Your task to perform on an android device: Go to Yahoo.com Image 0: 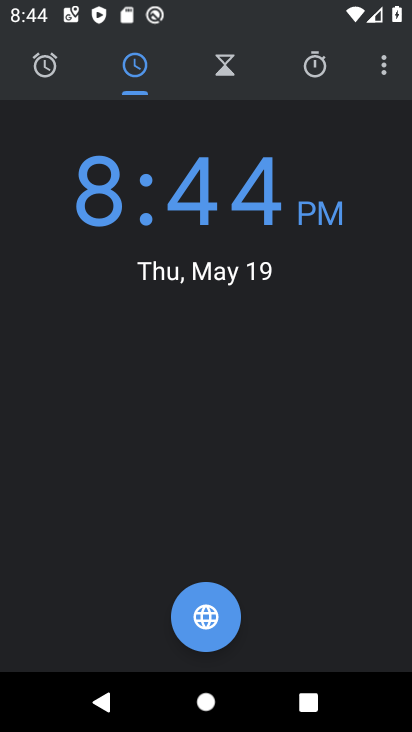
Step 0: press home button
Your task to perform on an android device: Go to Yahoo.com Image 1: 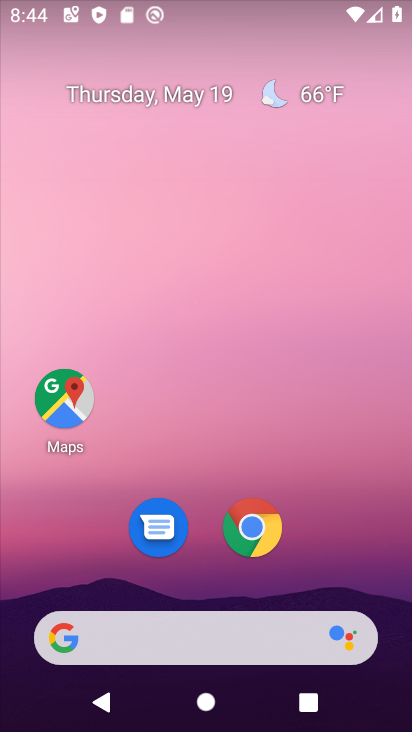
Step 1: click (264, 533)
Your task to perform on an android device: Go to Yahoo.com Image 2: 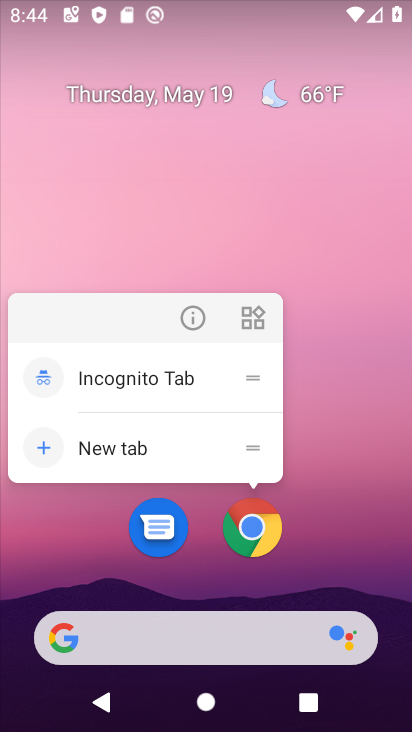
Step 2: click (266, 522)
Your task to perform on an android device: Go to Yahoo.com Image 3: 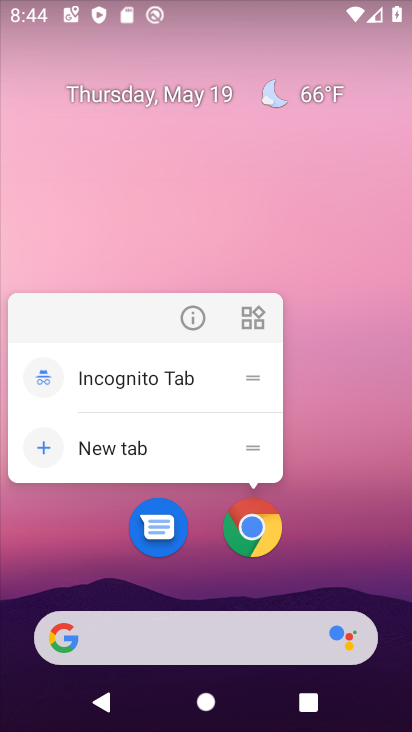
Step 3: click (239, 520)
Your task to perform on an android device: Go to Yahoo.com Image 4: 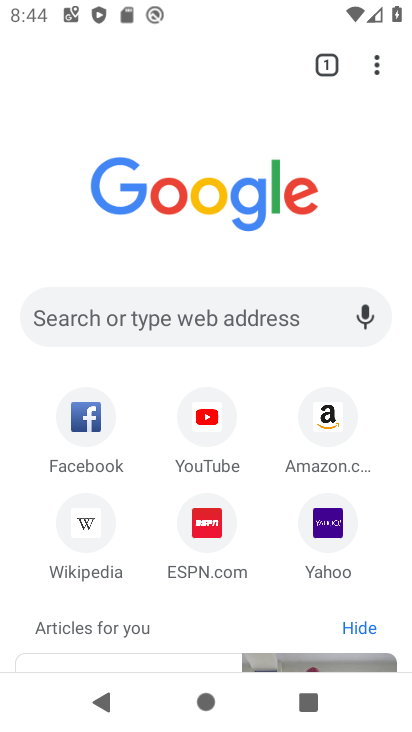
Step 4: click (323, 524)
Your task to perform on an android device: Go to Yahoo.com Image 5: 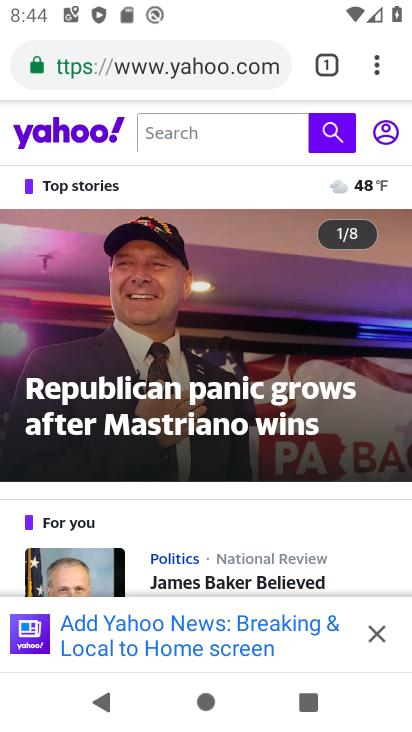
Step 5: task complete